Your task to perform on an android device: Go to Google maps Image 0: 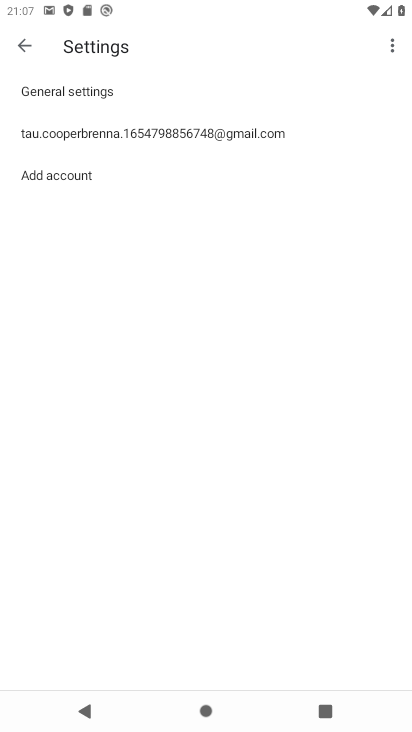
Step 0: press back button
Your task to perform on an android device: Go to Google maps Image 1: 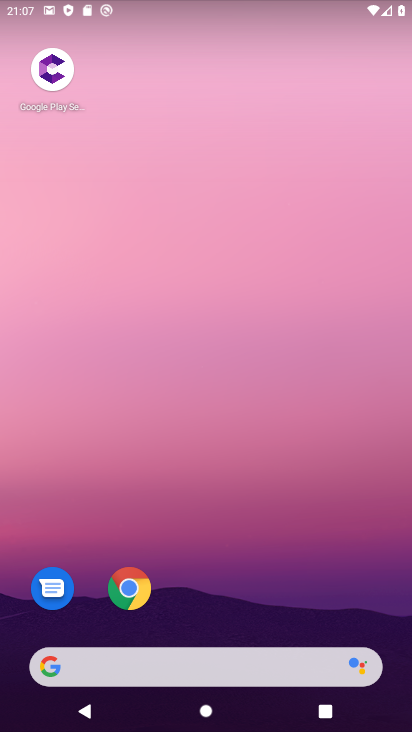
Step 1: drag from (253, 595) to (313, 18)
Your task to perform on an android device: Go to Google maps Image 2: 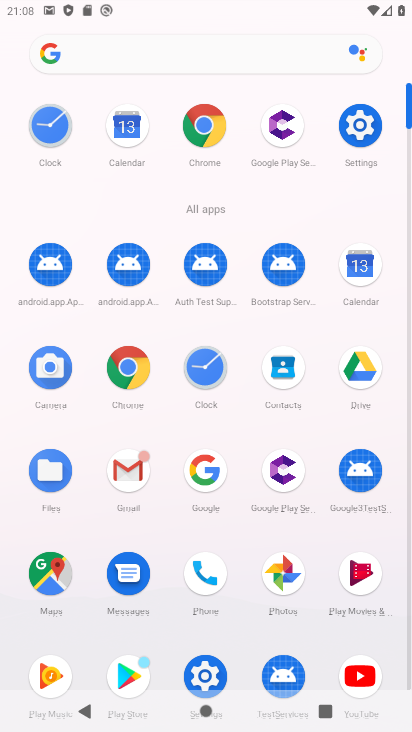
Step 2: click (36, 569)
Your task to perform on an android device: Go to Google maps Image 3: 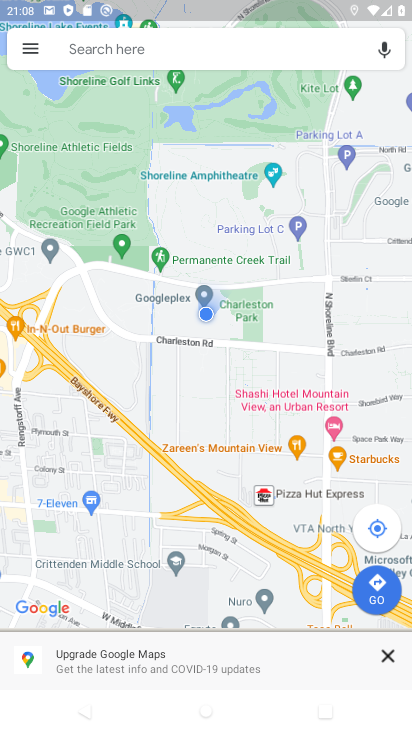
Step 3: task complete